Your task to perform on an android device: check google app version Image 0: 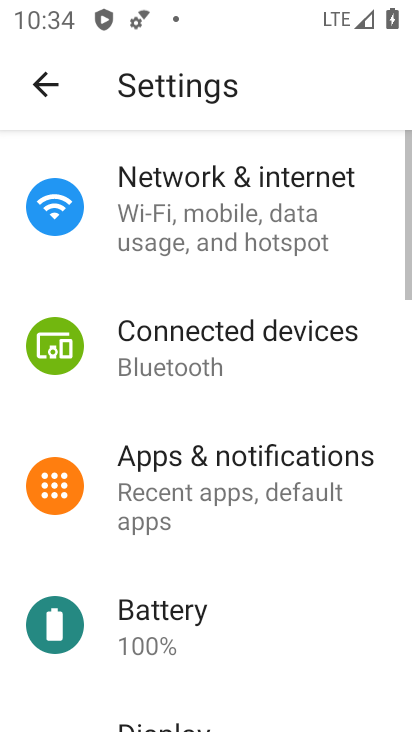
Step 0: press home button
Your task to perform on an android device: check google app version Image 1: 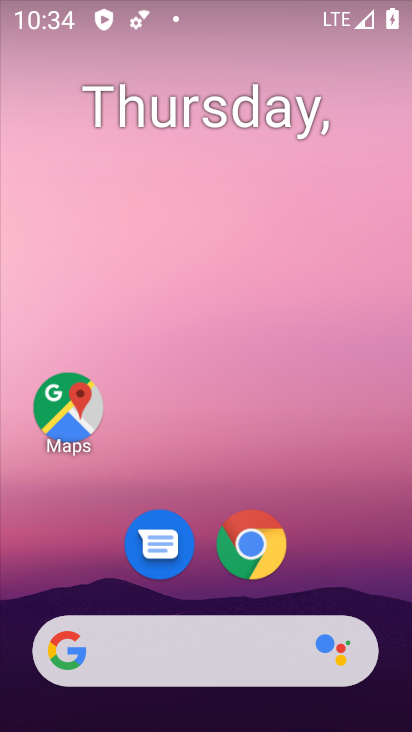
Step 1: drag from (325, 569) to (200, 115)
Your task to perform on an android device: check google app version Image 2: 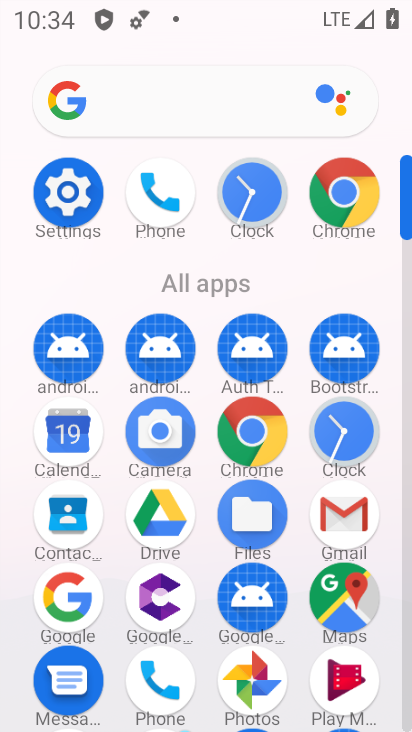
Step 2: click (70, 611)
Your task to perform on an android device: check google app version Image 3: 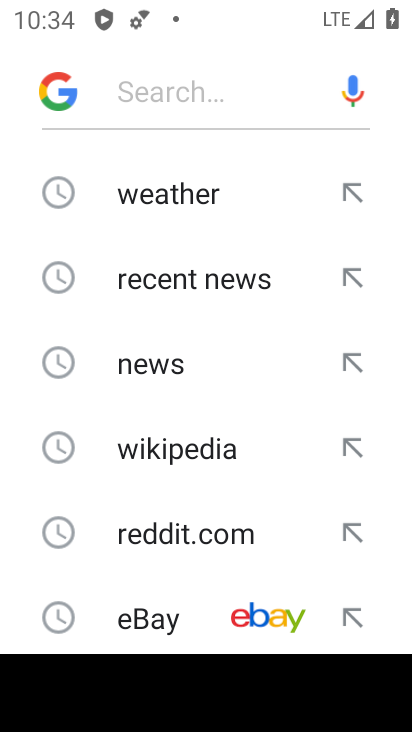
Step 3: click (65, 92)
Your task to perform on an android device: check google app version Image 4: 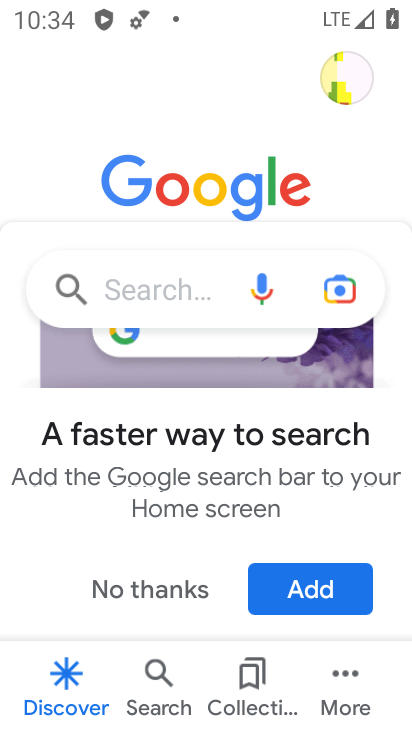
Step 4: click (330, 667)
Your task to perform on an android device: check google app version Image 5: 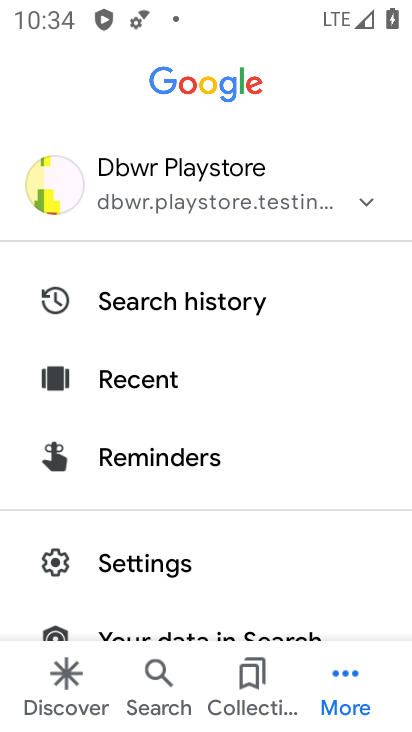
Step 5: click (117, 561)
Your task to perform on an android device: check google app version Image 6: 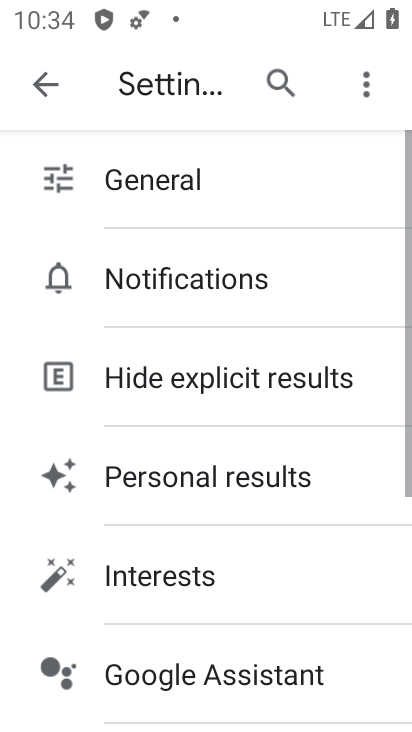
Step 6: drag from (141, 644) to (170, 276)
Your task to perform on an android device: check google app version Image 7: 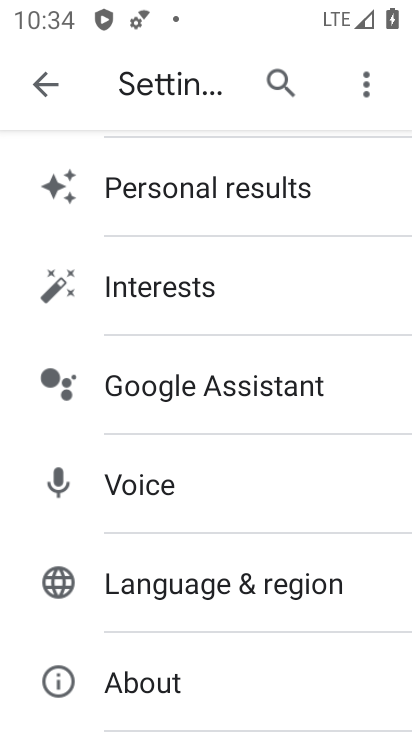
Step 7: click (140, 677)
Your task to perform on an android device: check google app version Image 8: 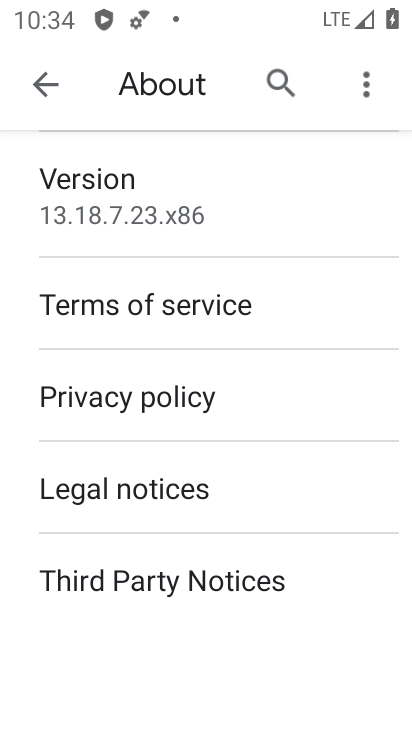
Step 8: click (92, 189)
Your task to perform on an android device: check google app version Image 9: 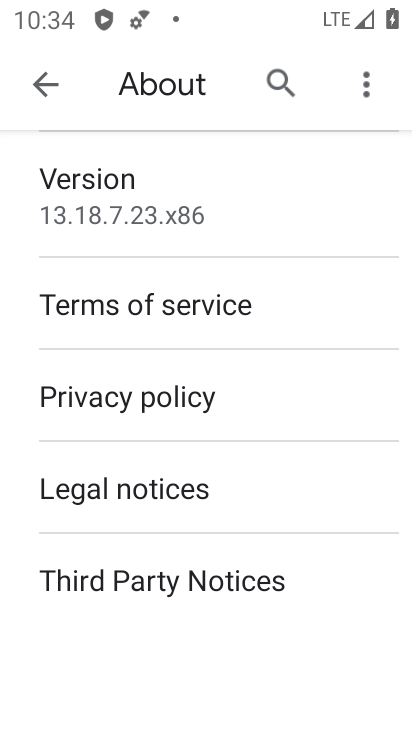
Step 9: task complete